Your task to perform on an android device: turn off smart reply in the gmail app Image 0: 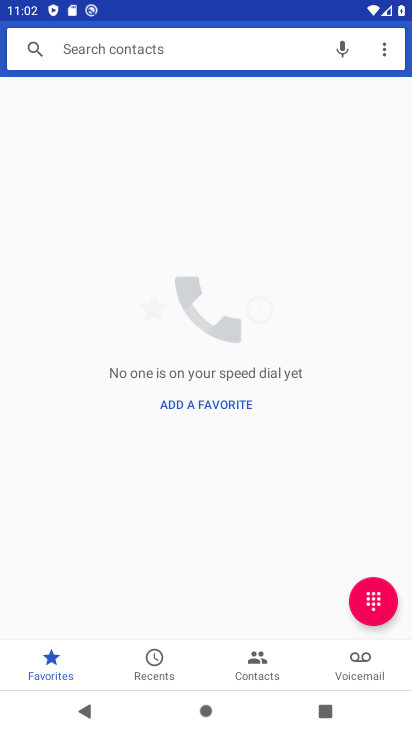
Step 0: press home button
Your task to perform on an android device: turn off smart reply in the gmail app Image 1: 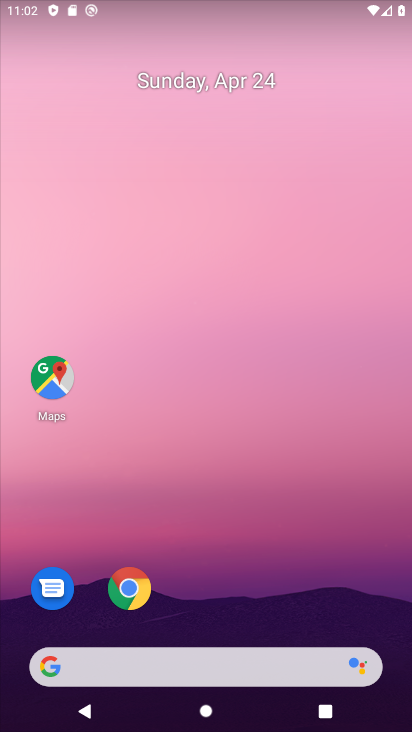
Step 1: drag from (230, 584) to (227, 109)
Your task to perform on an android device: turn off smart reply in the gmail app Image 2: 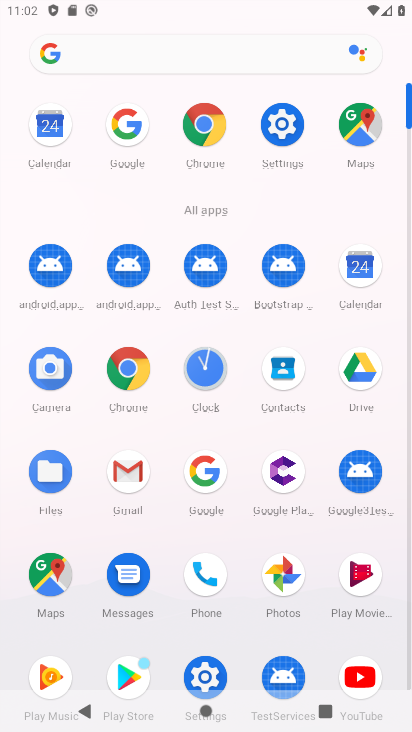
Step 2: click (135, 476)
Your task to perform on an android device: turn off smart reply in the gmail app Image 3: 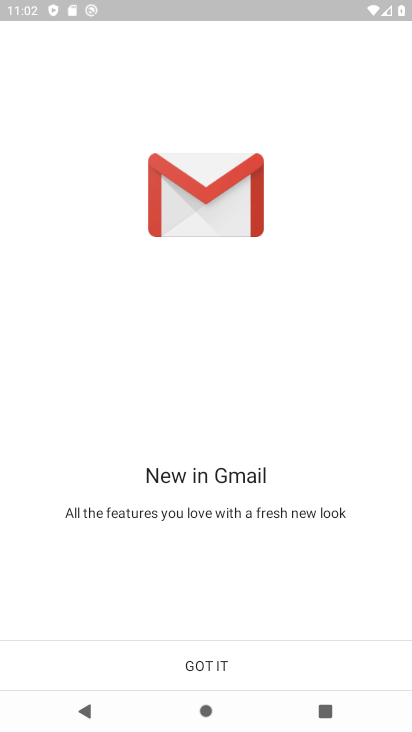
Step 3: click (220, 670)
Your task to perform on an android device: turn off smart reply in the gmail app Image 4: 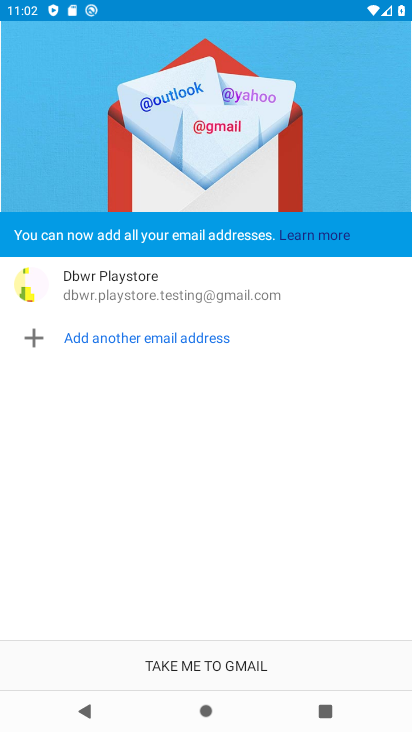
Step 4: click (232, 660)
Your task to perform on an android device: turn off smart reply in the gmail app Image 5: 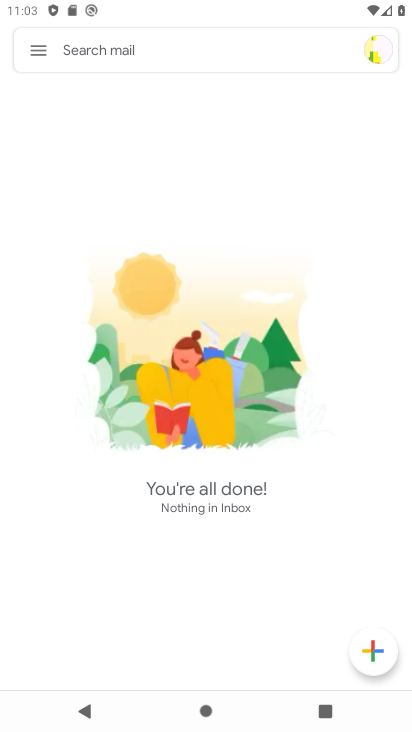
Step 5: click (35, 46)
Your task to perform on an android device: turn off smart reply in the gmail app Image 6: 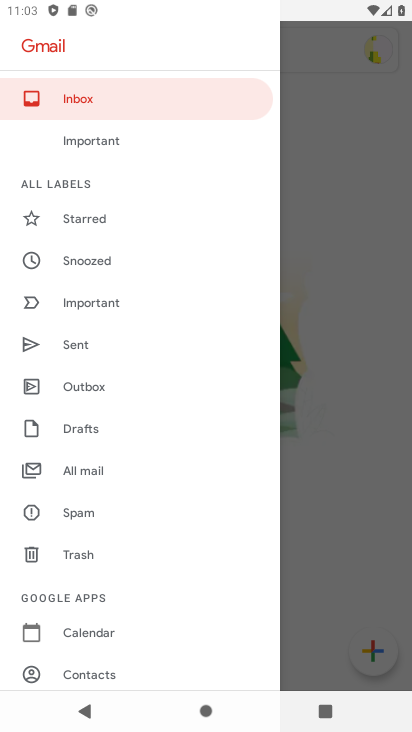
Step 6: drag from (138, 634) to (137, 259)
Your task to perform on an android device: turn off smart reply in the gmail app Image 7: 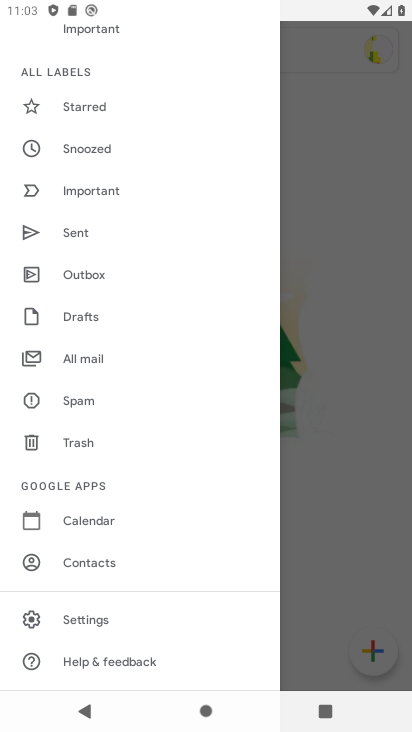
Step 7: click (106, 617)
Your task to perform on an android device: turn off smart reply in the gmail app Image 8: 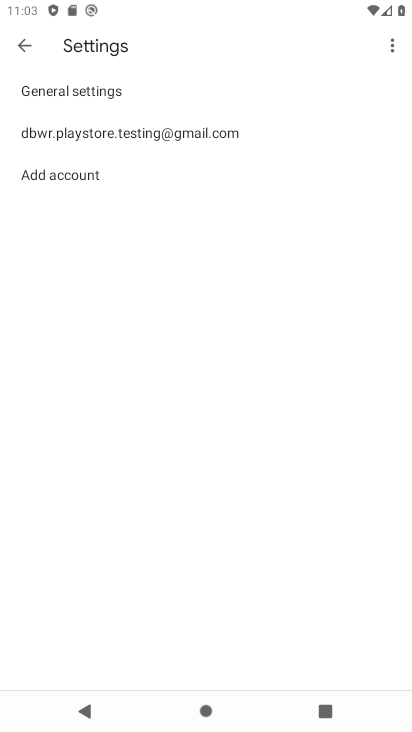
Step 8: click (96, 137)
Your task to perform on an android device: turn off smart reply in the gmail app Image 9: 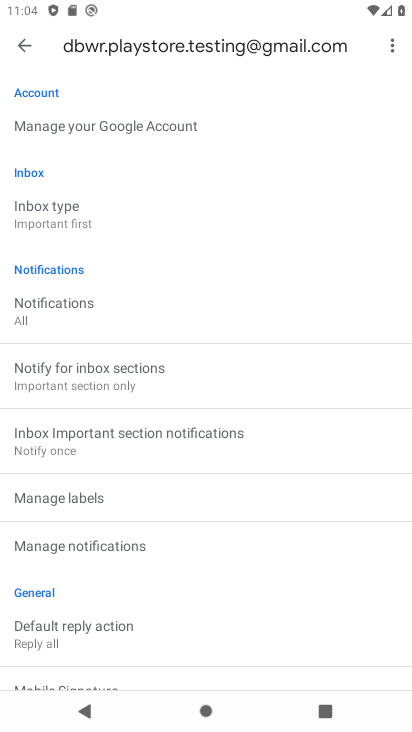
Step 9: drag from (203, 571) to (240, 197)
Your task to perform on an android device: turn off smart reply in the gmail app Image 10: 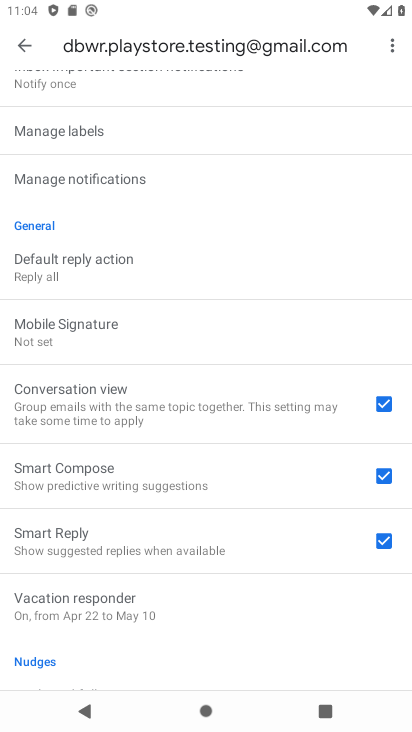
Step 10: click (383, 541)
Your task to perform on an android device: turn off smart reply in the gmail app Image 11: 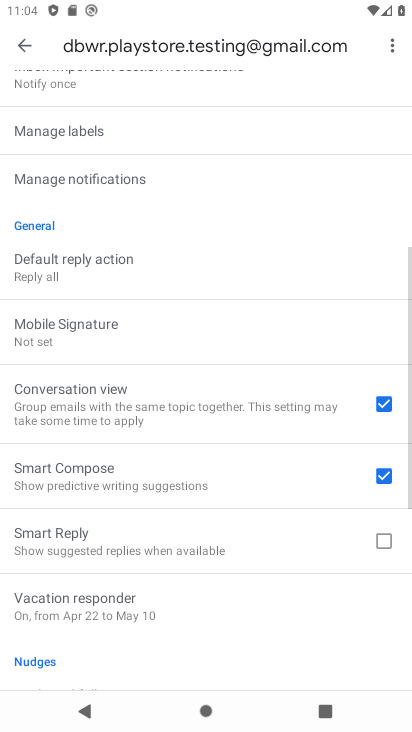
Step 11: task complete